Your task to perform on an android device: toggle notification dots Image 0: 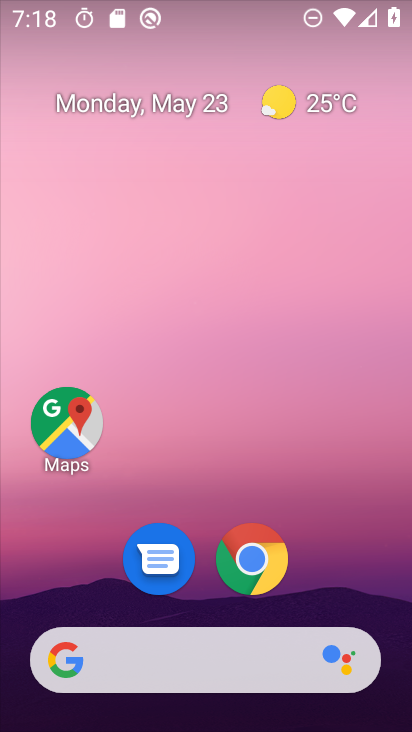
Step 0: drag from (395, 645) to (224, 79)
Your task to perform on an android device: toggle notification dots Image 1: 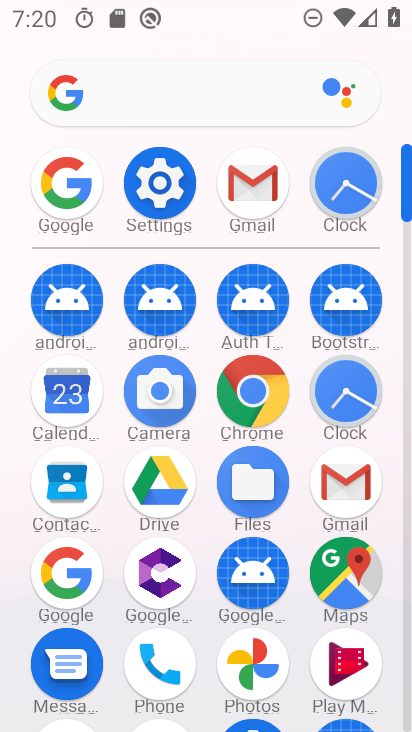
Step 1: click (168, 162)
Your task to perform on an android device: toggle notification dots Image 2: 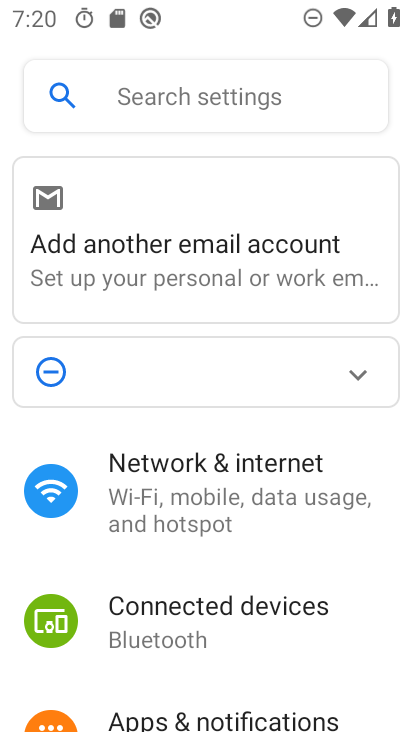
Step 2: click (272, 709)
Your task to perform on an android device: toggle notification dots Image 3: 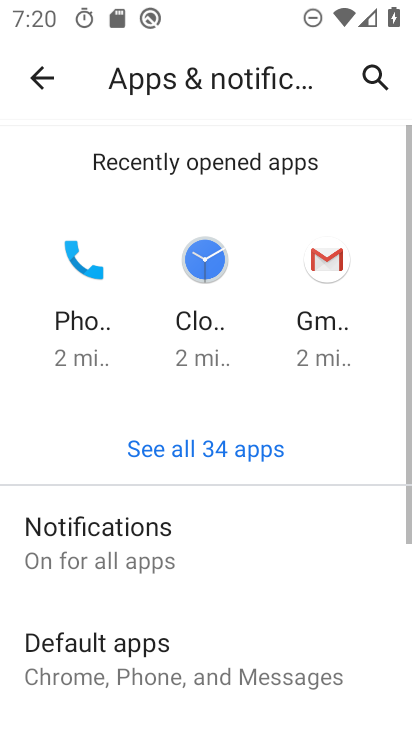
Step 3: click (138, 555)
Your task to perform on an android device: toggle notification dots Image 4: 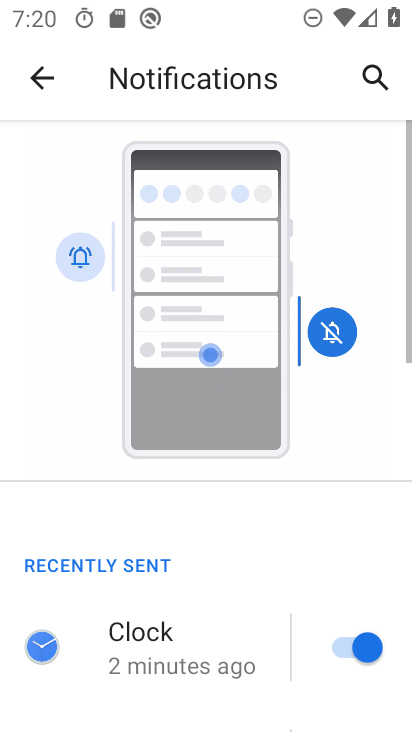
Step 4: drag from (138, 666) to (216, 80)
Your task to perform on an android device: toggle notification dots Image 5: 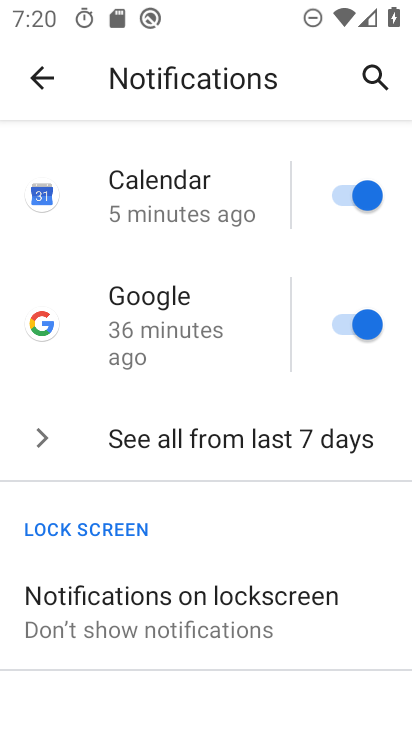
Step 5: drag from (214, 638) to (229, 53)
Your task to perform on an android device: toggle notification dots Image 6: 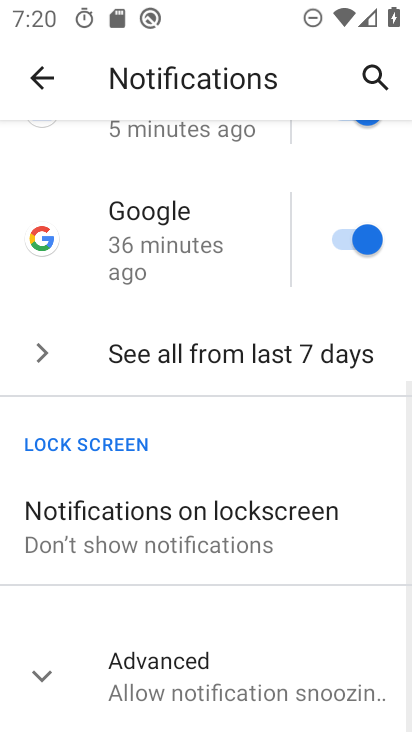
Step 6: click (192, 680)
Your task to perform on an android device: toggle notification dots Image 7: 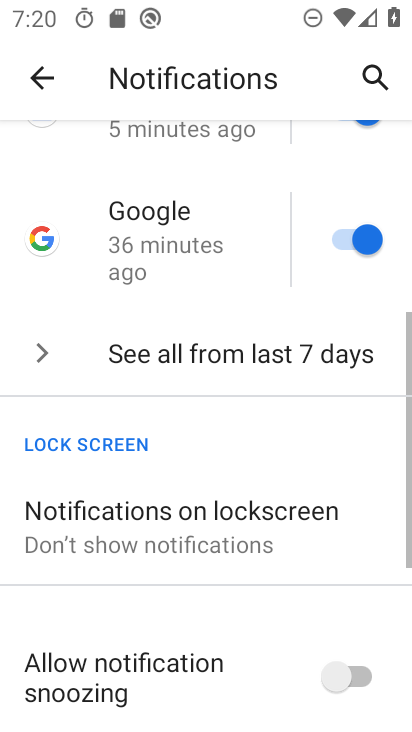
Step 7: drag from (176, 703) to (227, 161)
Your task to perform on an android device: toggle notification dots Image 8: 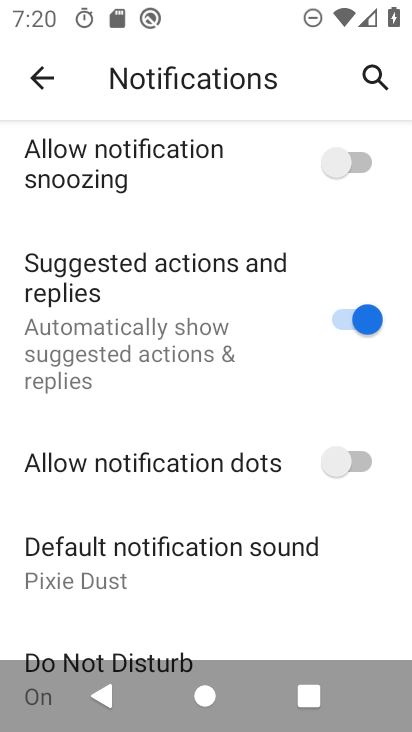
Step 8: click (285, 460)
Your task to perform on an android device: toggle notification dots Image 9: 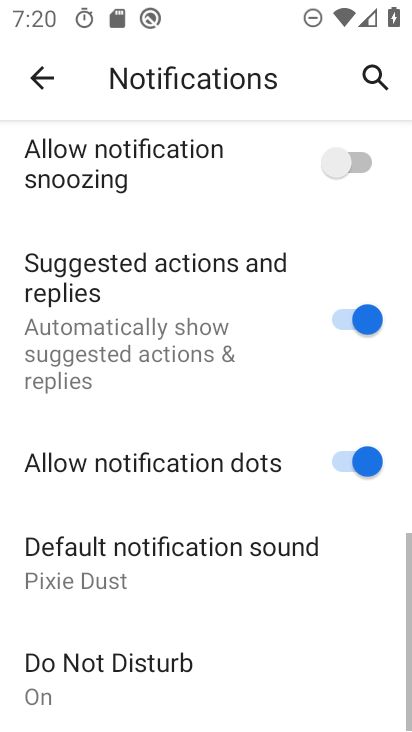
Step 9: task complete